Your task to perform on an android device: Open the phone app and click the voicemail tab. Image 0: 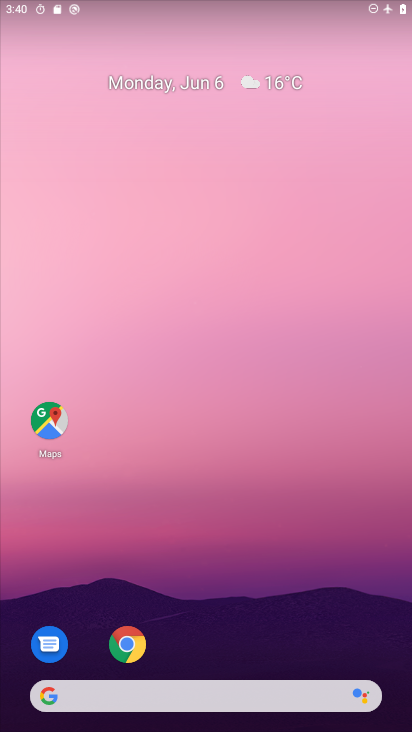
Step 0: press home button
Your task to perform on an android device: Open the phone app and click the voicemail tab. Image 1: 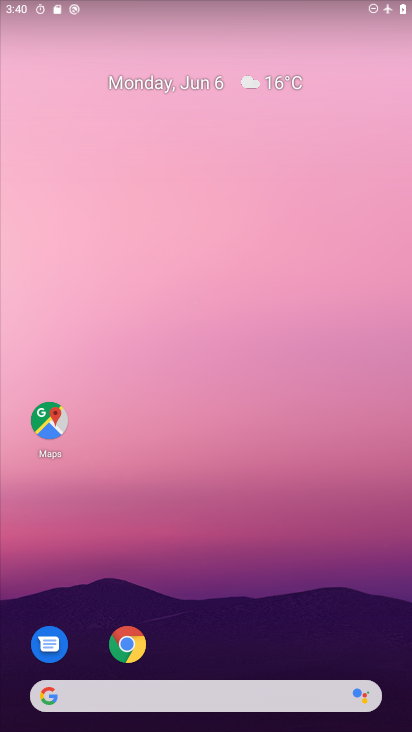
Step 1: drag from (271, 613) to (213, 12)
Your task to perform on an android device: Open the phone app and click the voicemail tab. Image 2: 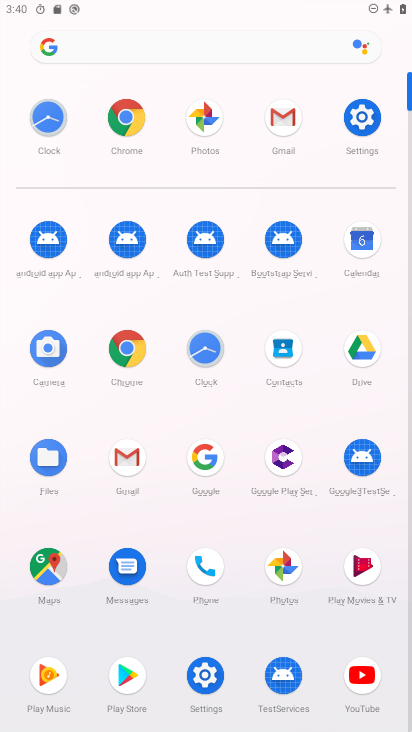
Step 2: click (201, 567)
Your task to perform on an android device: Open the phone app and click the voicemail tab. Image 3: 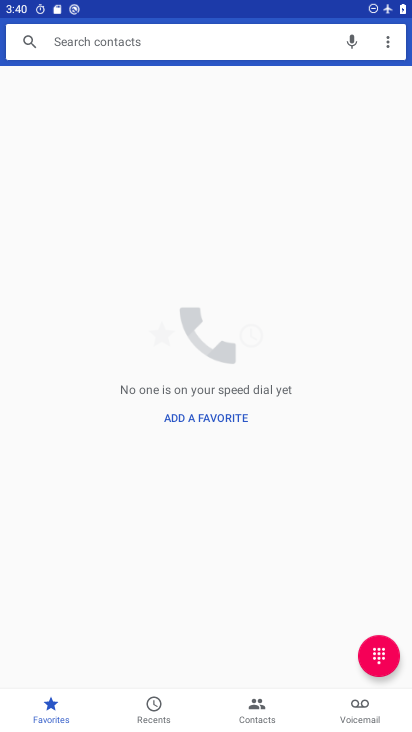
Step 3: click (357, 697)
Your task to perform on an android device: Open the phone app and click the voicemail tab. Image 4: 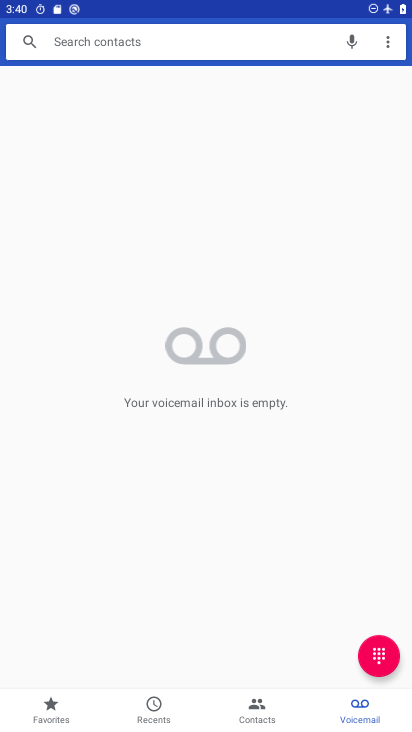
Step 4: task complete